Your task to perform on an android device: Open Android settings Image 0: 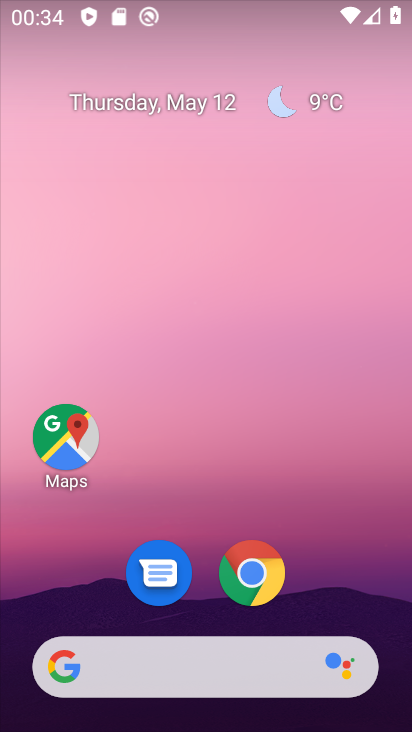
Step 0: drag from (207, 614) to (91, 29)
Your task to perform on an android device: Open Android settings Image 1: 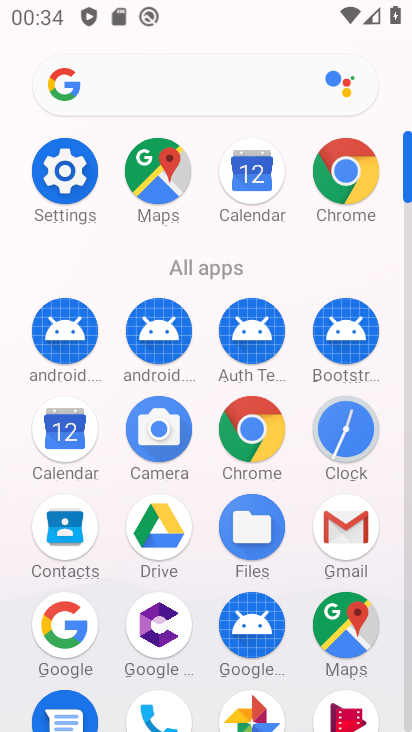
Step 1: click (89, 190)
Your task to perform on an android device: Open Android settings Image 2: 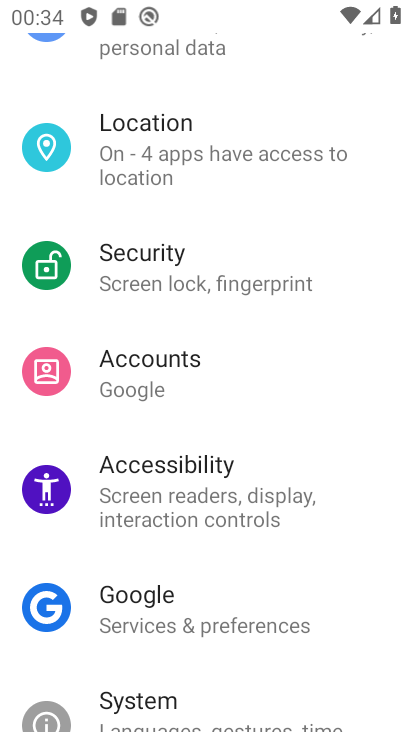
Step 2: drag from (142, 652) to (243, 0)
Your task to perform on an android device: Open Android settings Image 3: 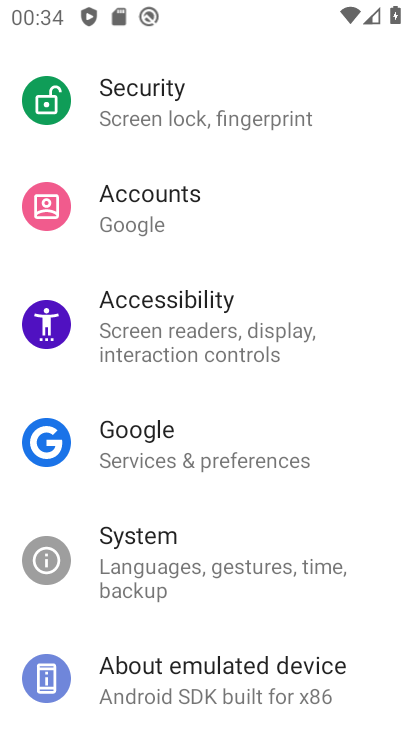
Step 3: click (190, 679)
Your task to perform on an android device: Open Android settings Image 4: 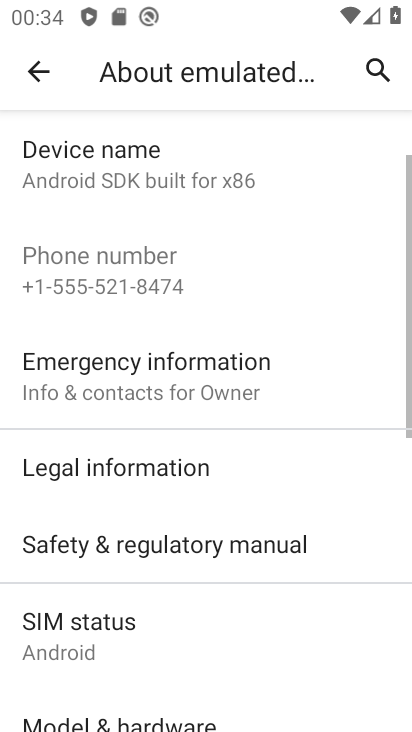
Step 4: drag from (100, 582) to (173, 116)
Your task to perform on an android device: Open Android settings Image 5: 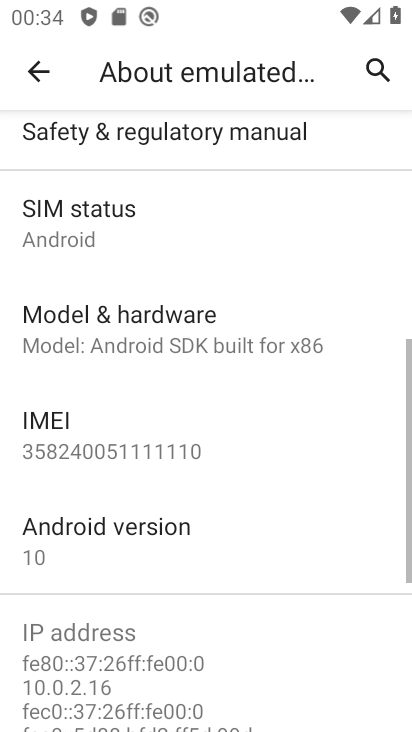
Step 5: click (137, 550)
Your task to perform on an android device: Open Android settings Image 6: 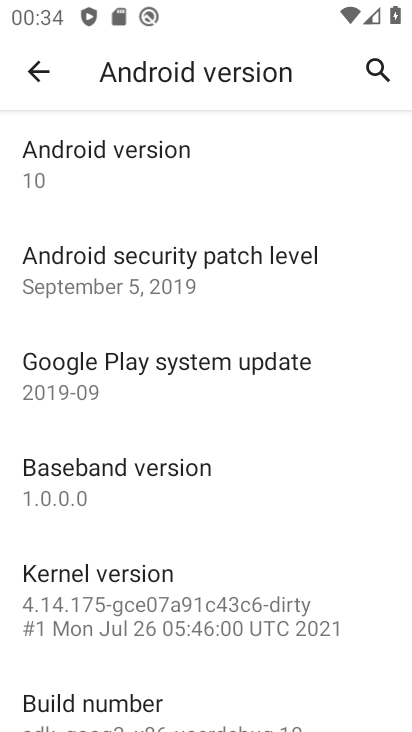
Step 6: task complete